Your task to perform on an android device: Open wifi settings Image 0: 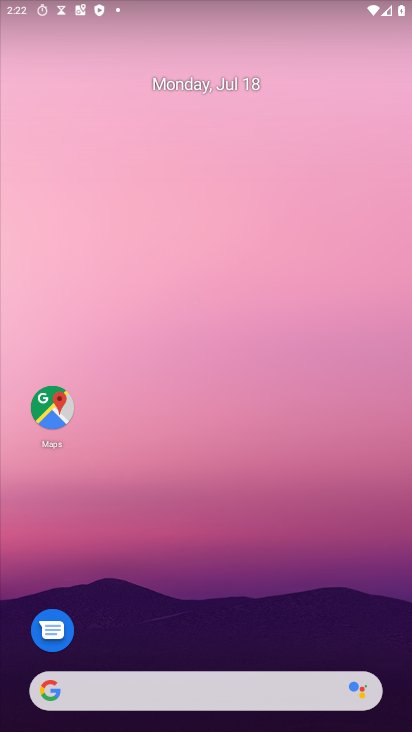
Step 0: drag from (166, 658) to (216, 14)
Your task to perform on an android device: Open wifi settings Image 1: 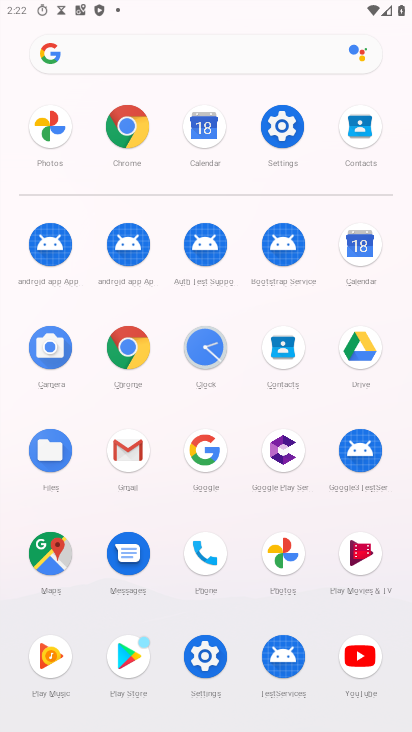
Step 1: click (282, 138)
Your task to perform on an android device: Open wifi settings Image 2: 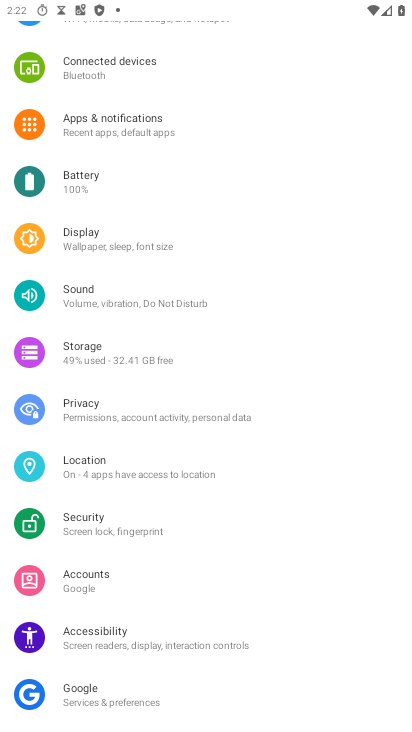
Step 2: drag from (209, 157) to (227, 665)
Your task to perform on an android device: Open wifi settings Image 3: 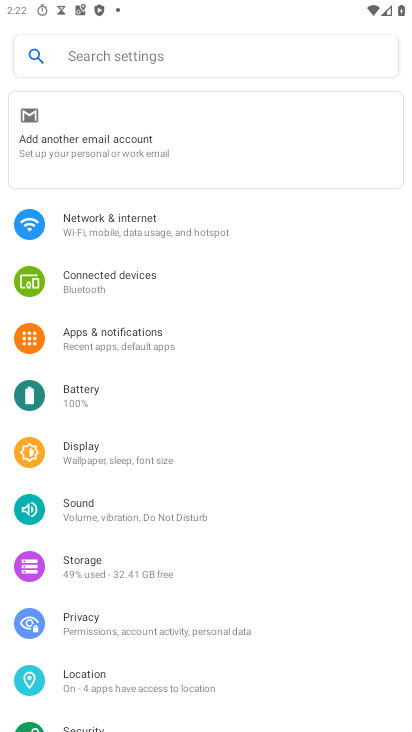
Step 3: click (194, 240)
Your task to perform on an android device: Open wifi settings Image 4: 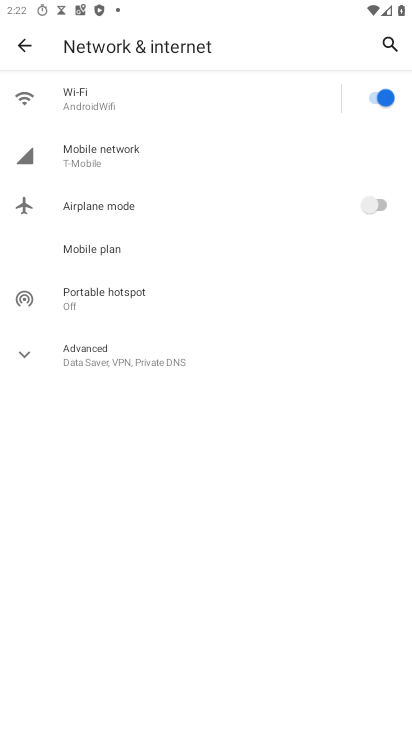
Step 4: click (152, 87)
Your task to perform on an android device: Open wifi settings Image 5: 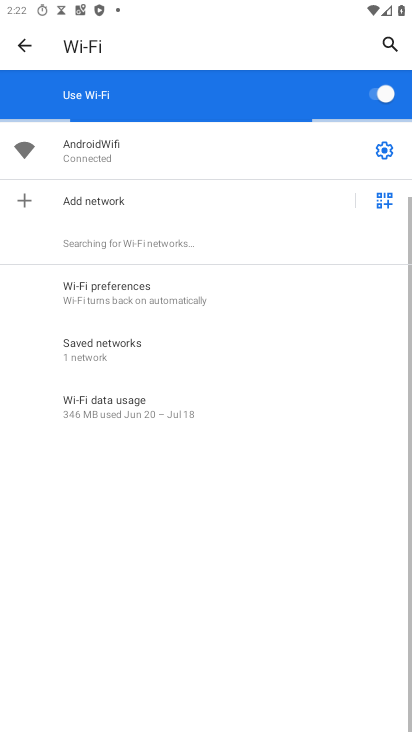
Step 5: task complete